Your task to perform on an android device: Go to sound settings Image 0: 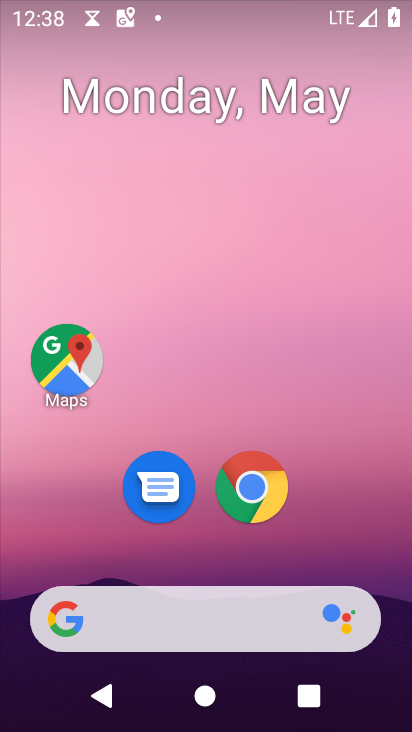
Step 0: drag from (208, 557) to (207, 2)
Your task to perform on an android device: Go to sound settings Image 1: 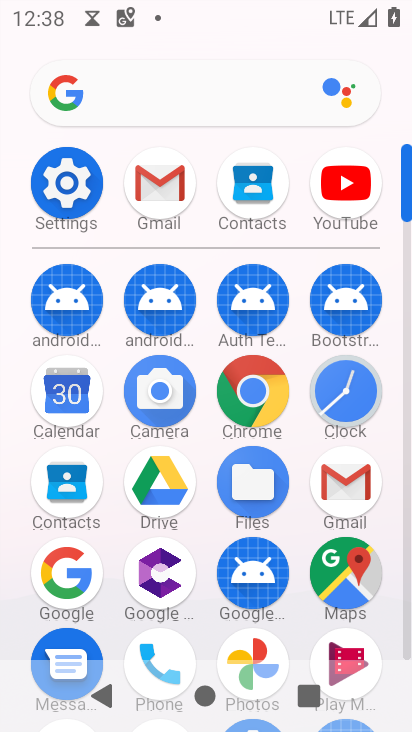
Step 1: click (63, 180)
Your task to perform on an android device: Go to sound settings Image 2: 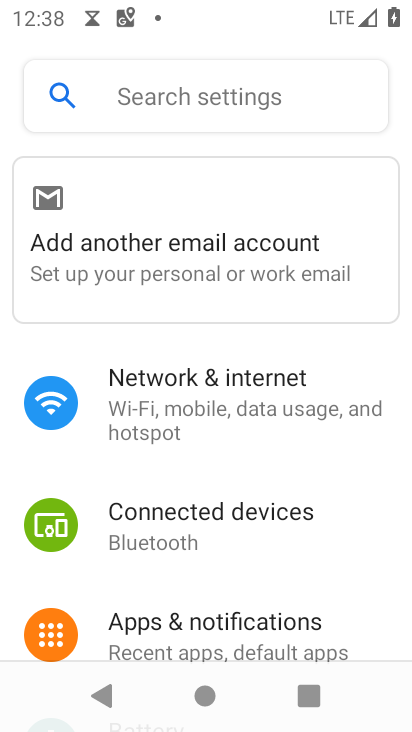
Step 2: drag from (179, 604) to (132, 141)
Your task to perform on an android device: Go to sound settings Image 3: 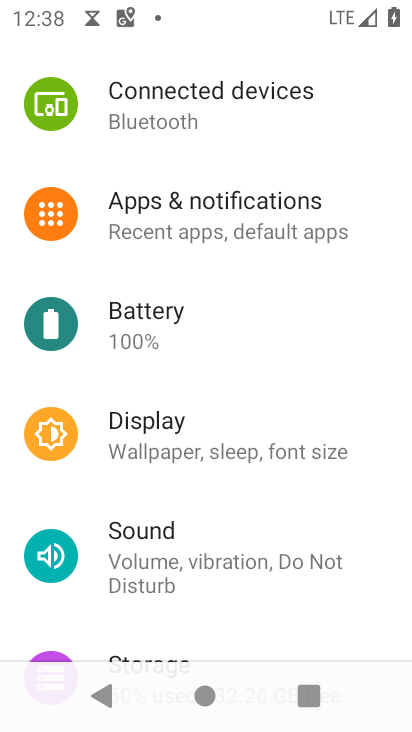
Step 3: click (188, 585)
Your task to perform on an android device: Go to sound settings Image 4: 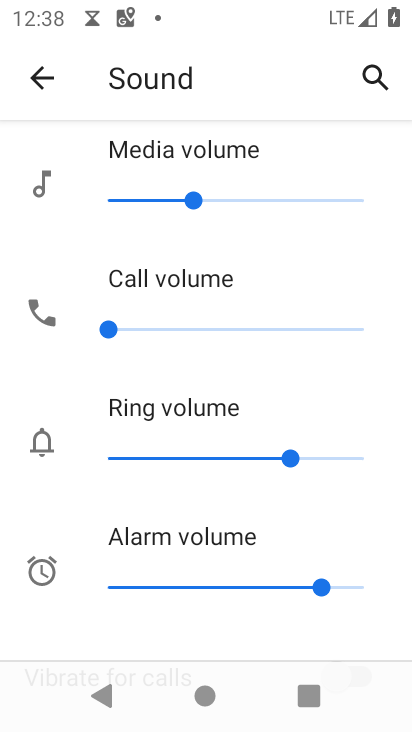
Step 4: task complete